Your task to perform on an android device: delete the emails in spam in the gmail app Image 0: 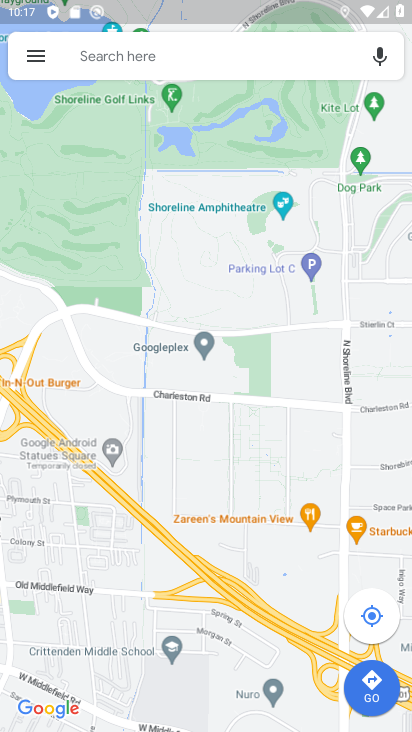
Step 0: press back button
Your task to perform on an android device: delete the emails in spam in the gmail app Image 1: 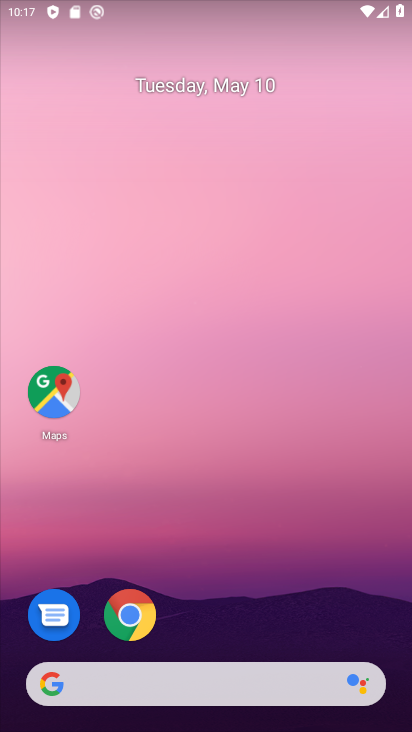
Step 1: drag from (226, 588) to (225, 110)
Your task to perform on an android device: delete the emails in spam in the gmail app Image 2: 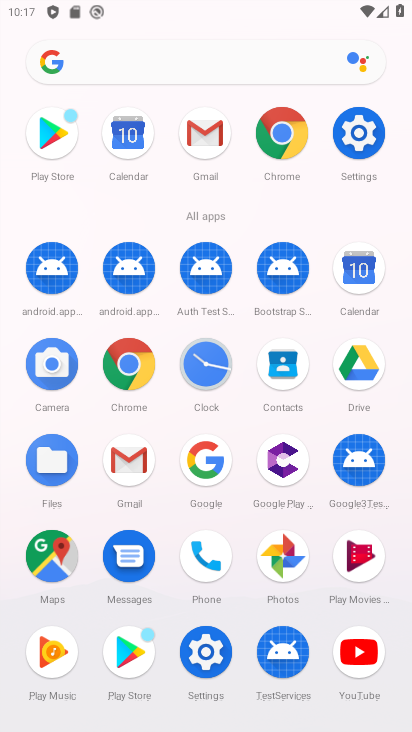
Step 2: click (201, 135)
Your task to perform on an android device: delete the emails in spam in the gmail app Image 3: 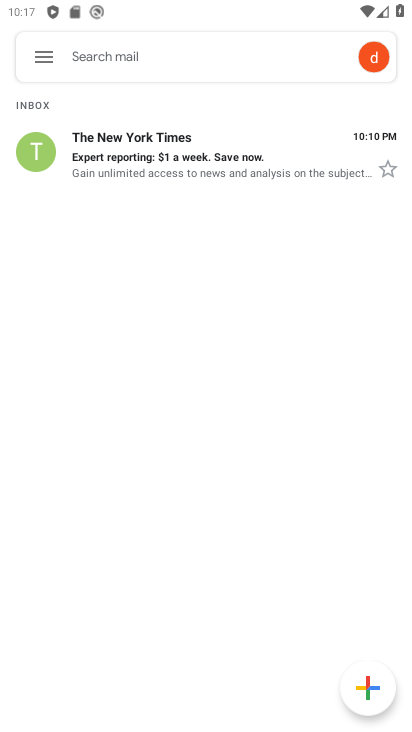
Step 3: click (40, 56)
Your task to perform on an android device: delete the emails in spam in the gmail app Image 4: 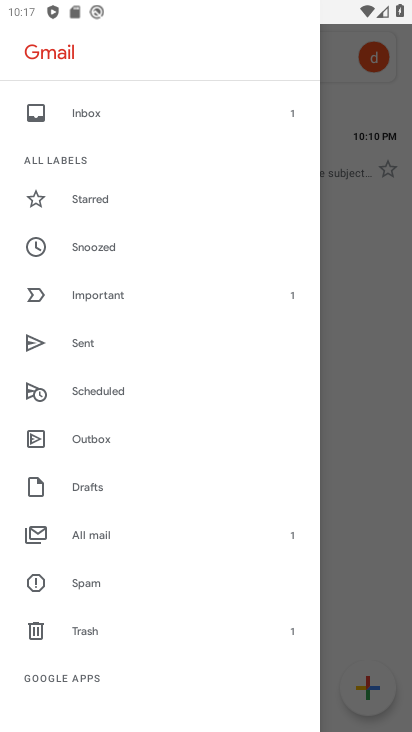
Step 4: click (94, 585)
Your task to perform on an android device: delete the emails in spam in the gmail app Image 5: 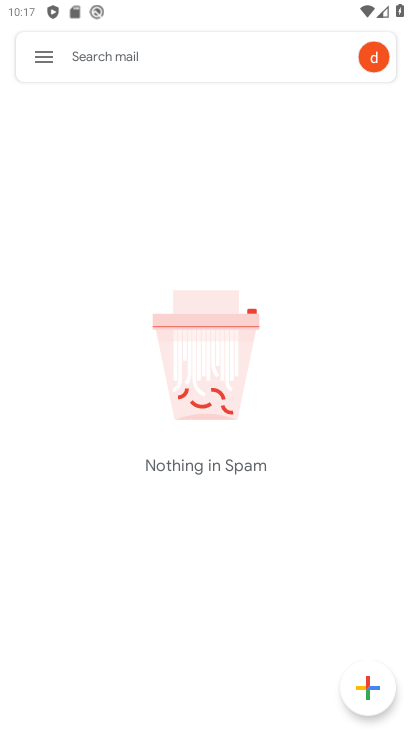
Step 5: task complete